Your task to perform on an android device: Do I have any events today? Image 0: 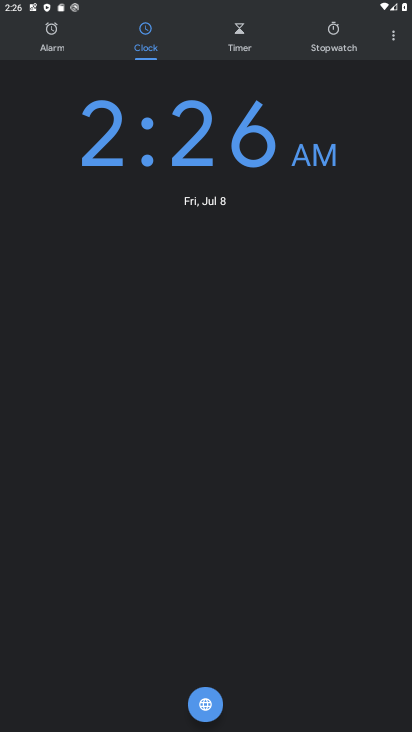
Step 0: drag from (278, 552) to (178, 31)
Your task to perform on an android device: Do I have any events today? Image 1: 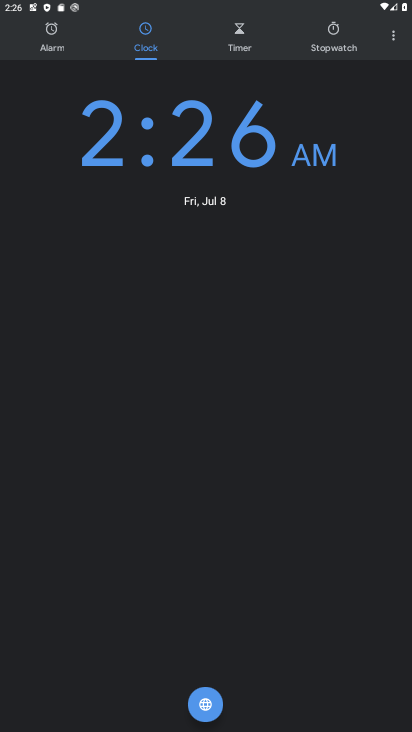
Step 1: press back button
Your task to perform on an android device: Do I have any events today? Image 2: 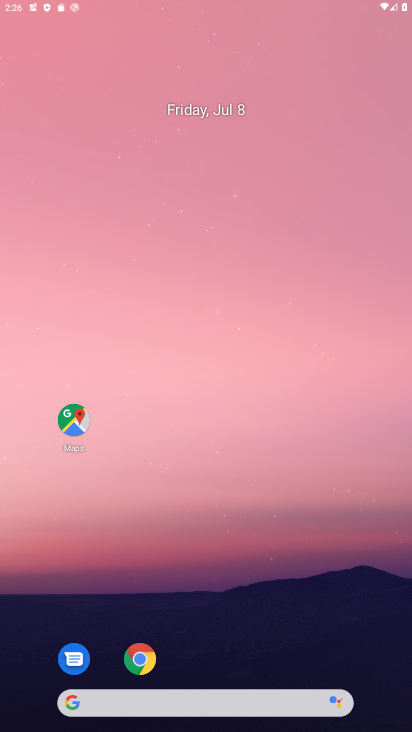
Step 2: press back button
Your task to perform on an android device: Do I have any events today? Image 3: 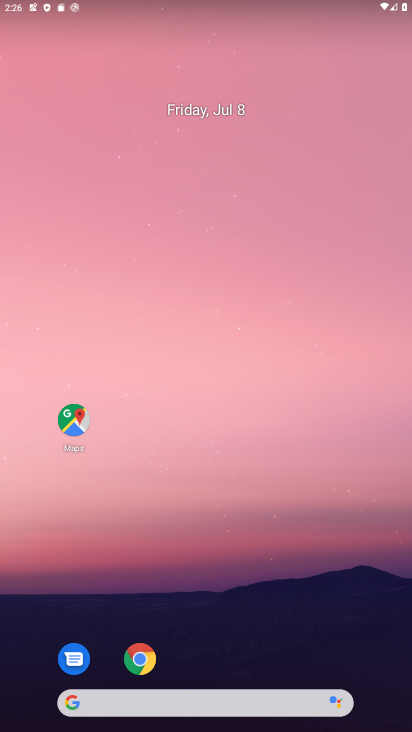
Step 3: drag from (92, 120) to (87, 78)
Your task to perform on an android device: Do I have any events today? Image 4: 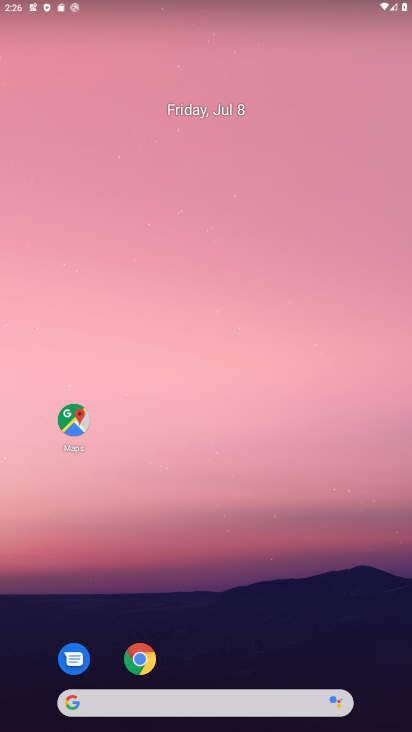
Step 4: click (207, 35)
Your task to perform on an android device: Do I have any events today? Image 5: 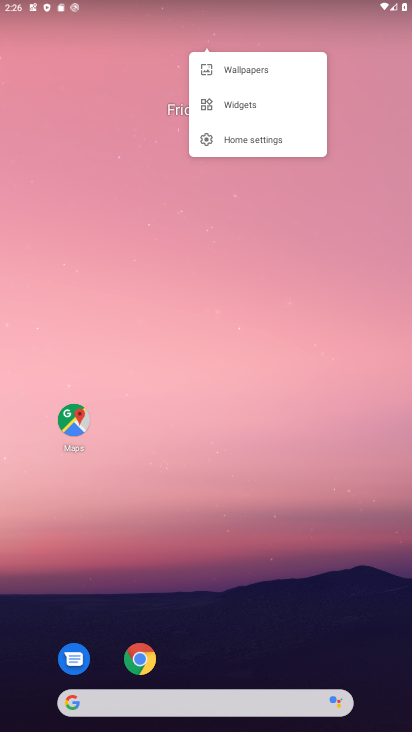
Step 5: drag from (189, 245) to (180, 17)
Your task to perform on an android device: Do I have any events today? Image 6: 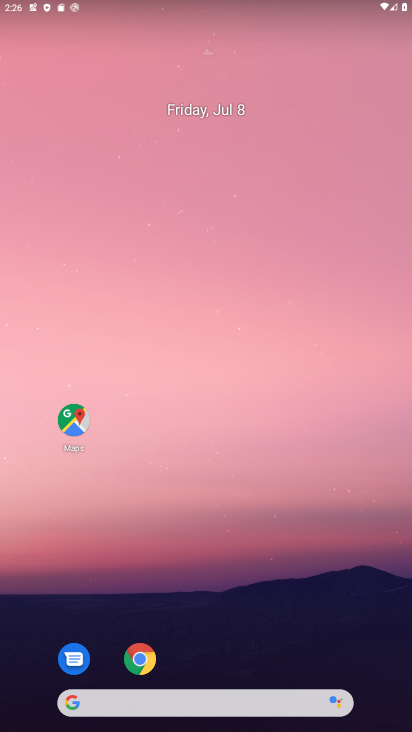
Step 6: drag from (273, 288) to (217, 63)
Your task to perform on an android device: Do I have any events today? Image 7: 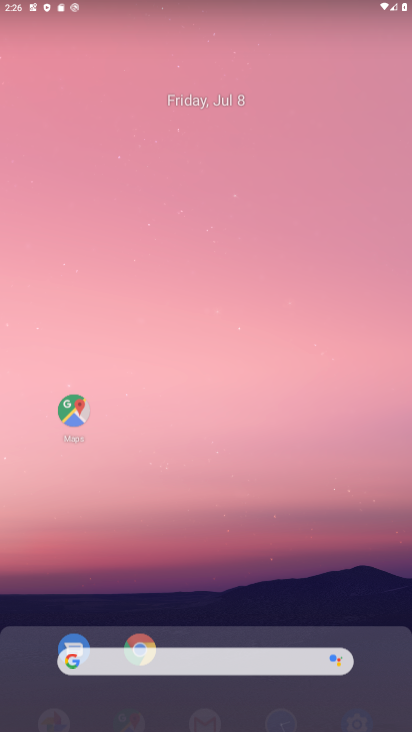
Step 7: drag from (186, 65) to (90, 22)
Your task to perform on an android device: Do I have any events today? Image 8: 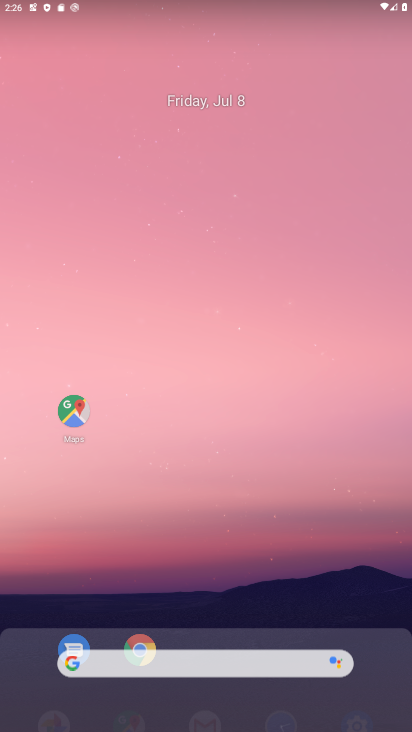
Step 8: drag from (63, 594) to (118, 247)
Your task to perform on an android device: Do I have any events today? Image 9: 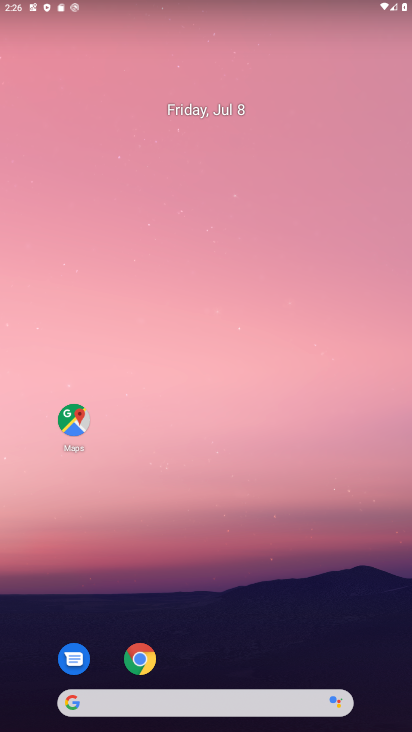
Step 9: click (107, 74)
Your task to perform on an android device: Do I have any events today? Image 10: 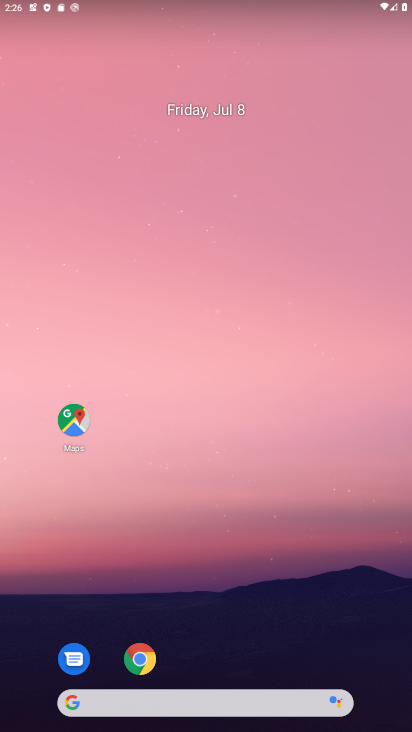
Step 10: click (192, 245)
Your task to perform on an android device: Do I have any events today? Image 11: 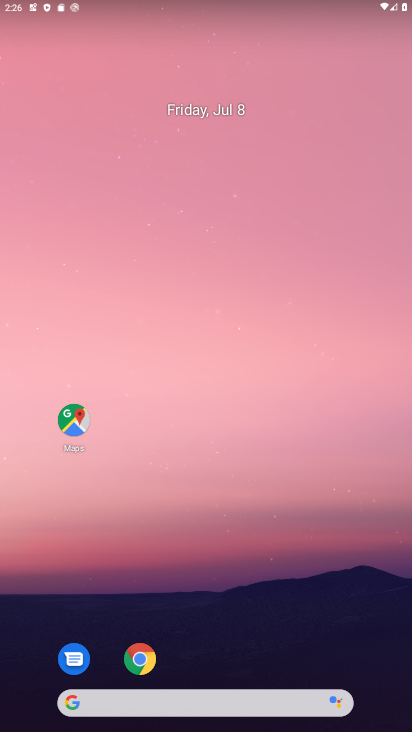
Step 11: drag from (277, 351) to (277, 229)
Your task to perform on an android device: Do I have any events today? Image 12: 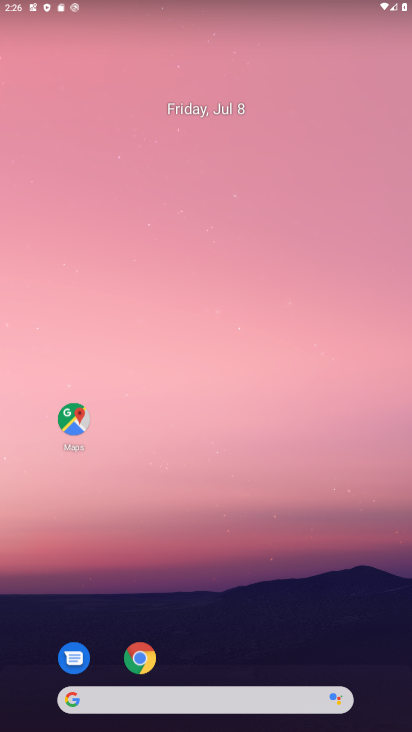
Step 12: drag from (242, 462) to (176, 56)
Your task to perform on an android device: Do I have any events today? Image 13: 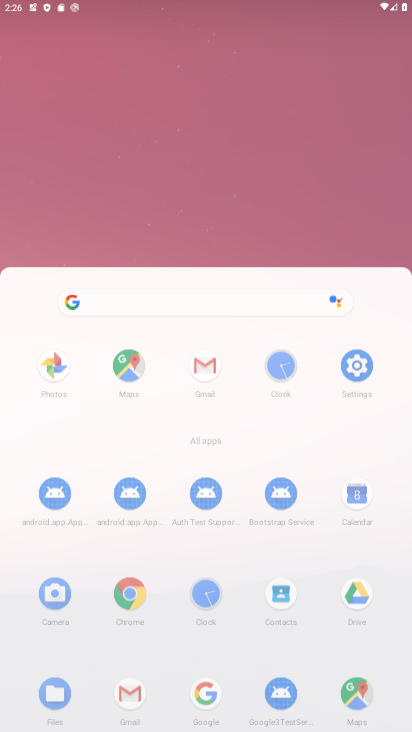
Step 13: drag from (218, 412) to (199, 222)
Your task to perform on an android device: Do I have any events today? Image 14: 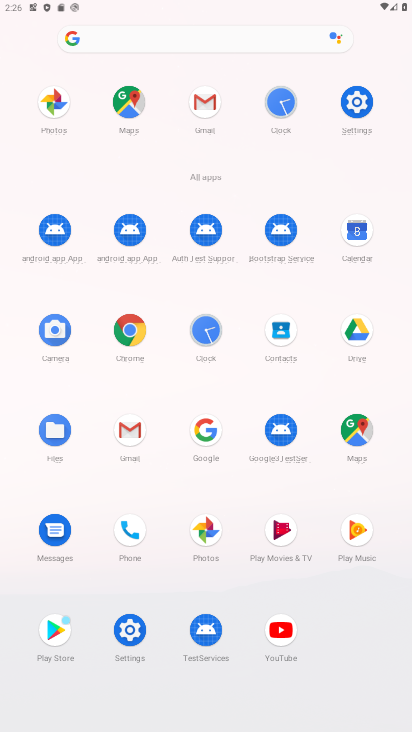
Step 14: click (360, 235)
Your task to perform on an android device: Do I have any events today? Image 15: 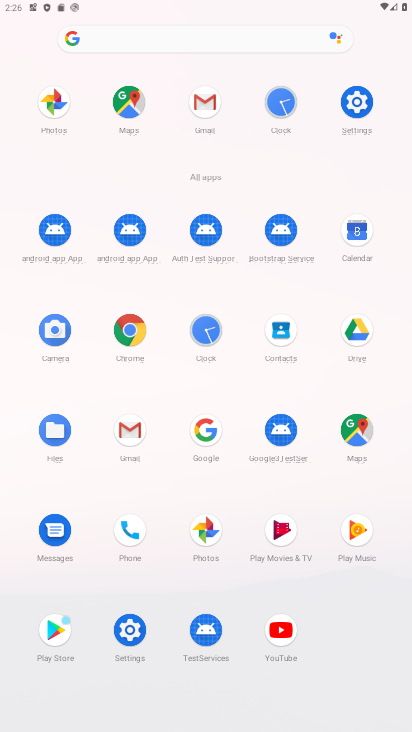
Step 15: click (360, 235)
Your task to perform on an android device: Do I have any events today? Image 16: 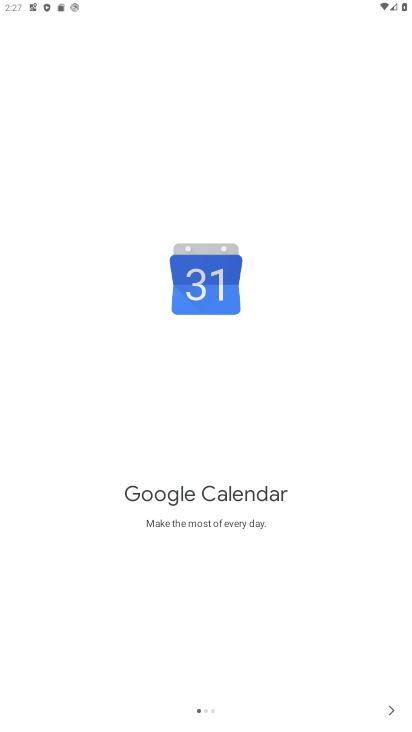
Step 16: click (392, 715)
Your task to perform on an android device: Do I have any events today? Image 17: 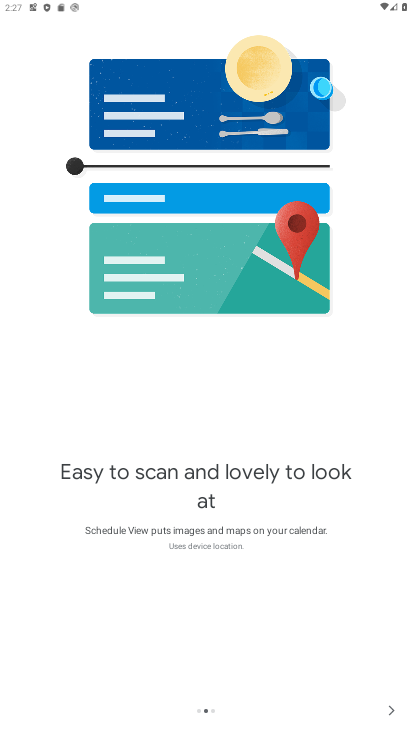
Step 17: click (392, 715)
Your task to perform on an android device: Do I have any events today? Image 18: 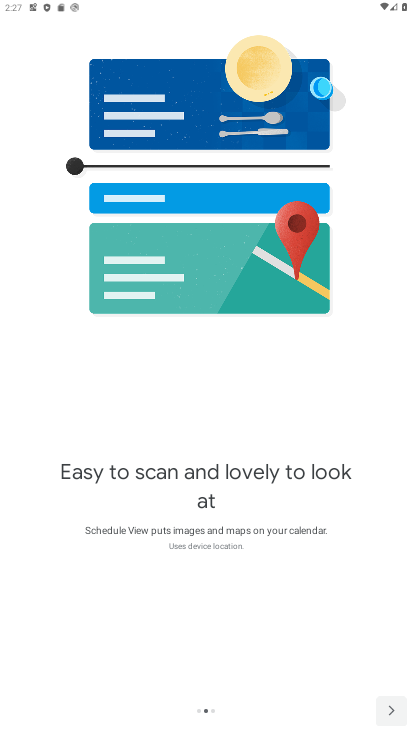
Step 18: click (392, 715)
Your task to perform on an android device: Do I have any events today? Image 19: 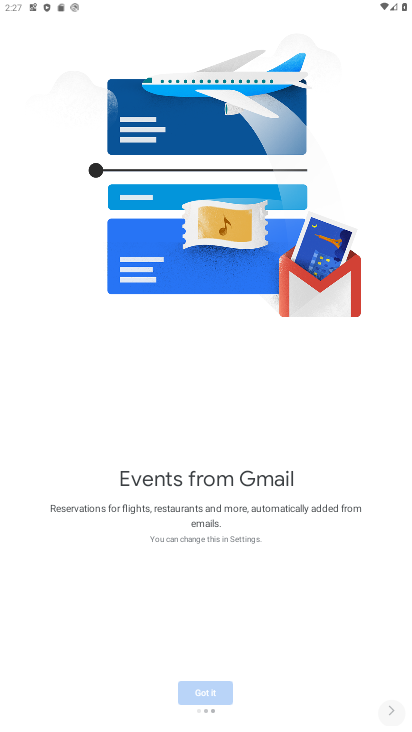
Step 19: click (392, 715)
Your task to perform on an android device: Do I have any events today? Image 20: 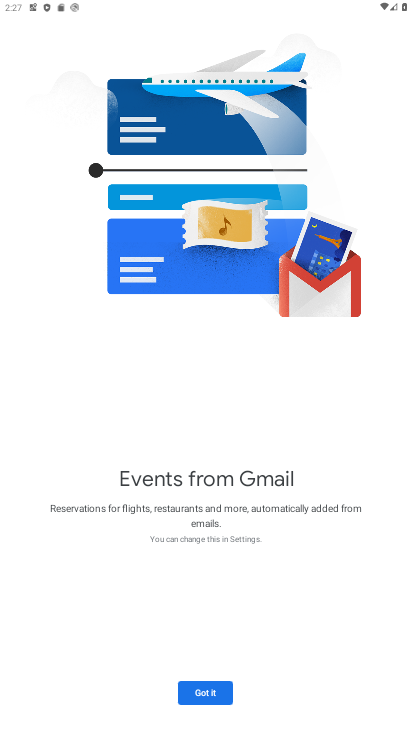
Step 20: click (222, 699)
Your task to perform on an android device: Do I have any events today? Image 21: 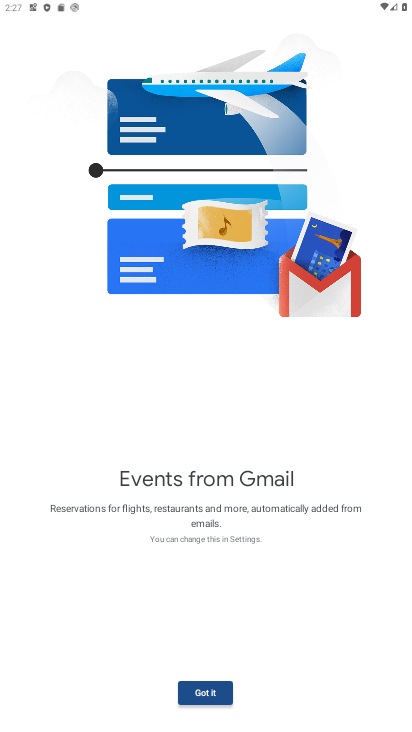
Step 21: click (222, 699)
Your task to perform on an android device: Do I have any events today? Image 22: 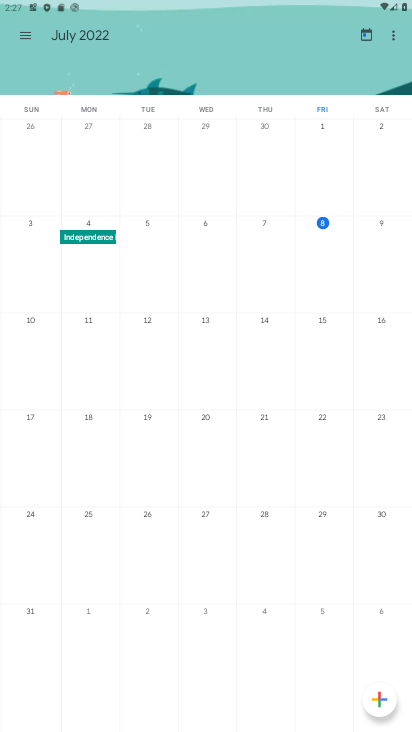
Step 22: click (321, 223)
Your task to perform on an android device: Do I have any events today? Image 23: 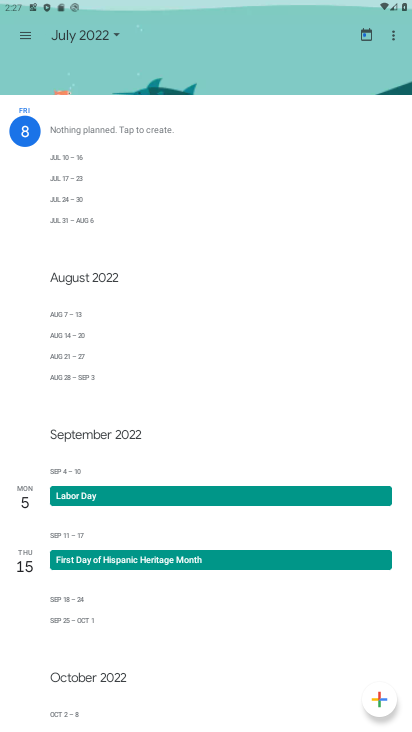
Step 23: click (263, 212)
Your task to perform on an android device: Do I have any events today? Image 24: 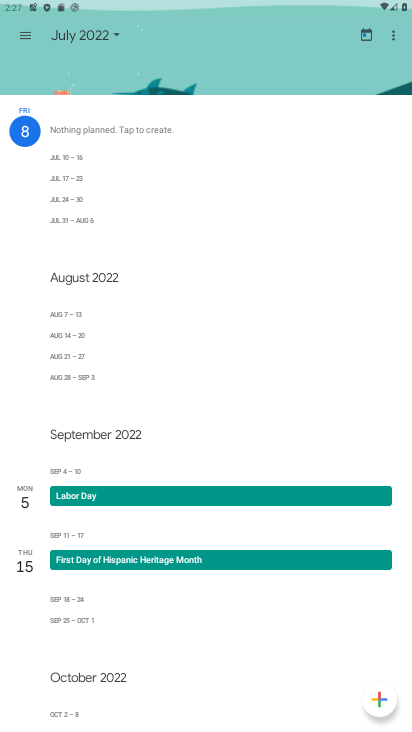
Step 24: click (258, 216)
Your task to perform on an android device: Do I have any events today? Image 25: 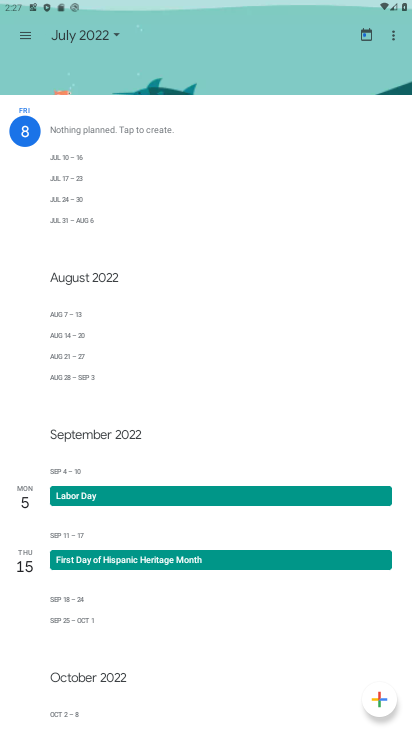
Step 25: task complete